Your task to perform on an android device: move an email to a new category in the gmail app Image 0: 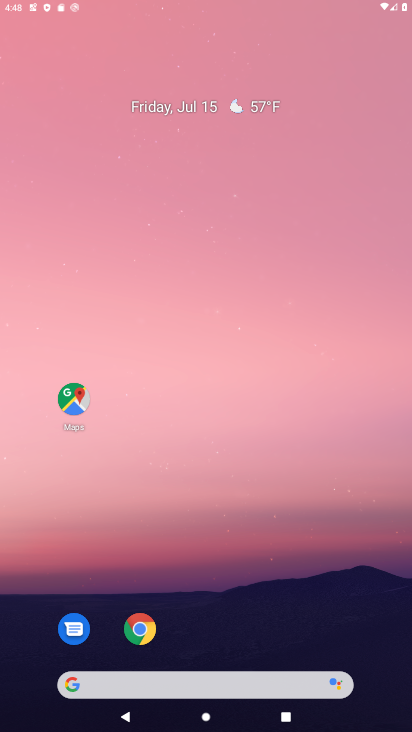
Step 0: press home button
Your task to perform on an android device: move an email to a new category in the gmail app Image 1: 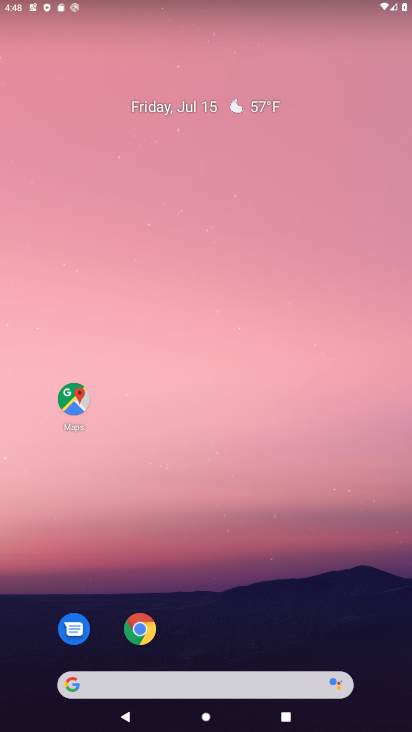
Step 1: drag from (267, 610) to (283, 91)
Your task to perform on an android device: move an email to a new category in the gmail app Image 2: 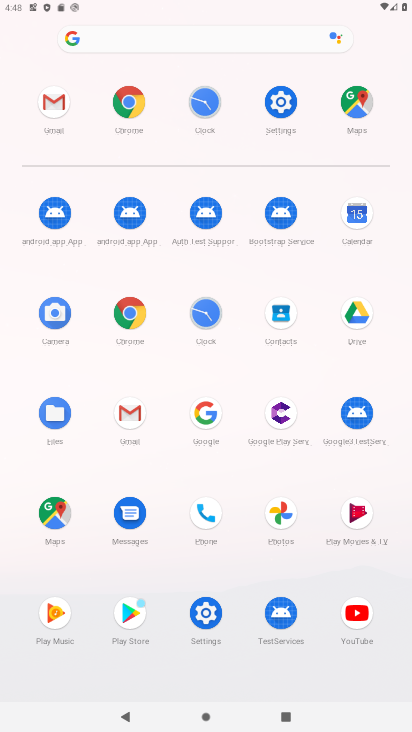
Step 2: click (48, 102)
Your task to perform on an android device: move an email to a new category in the gmail app Image 3: 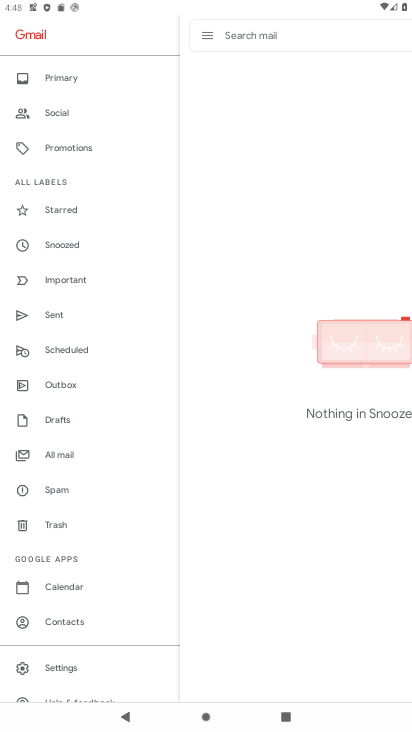
Step 3: click (60, 454)
Your task to perform on an android device: move an email to a new category in the gmail app Image 4: 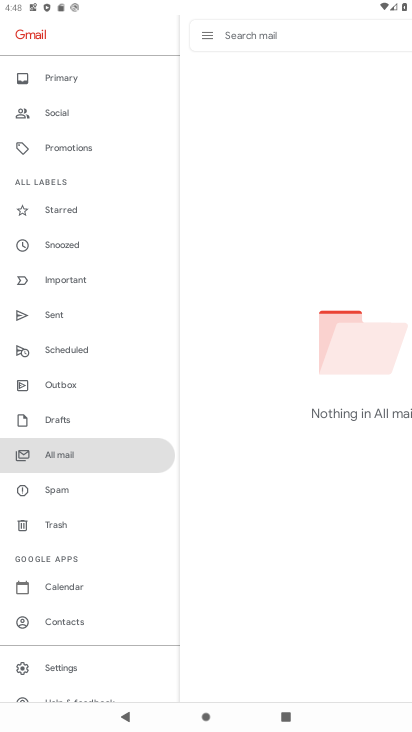
Step 4: task complete